Your task to perform on an android device: add a contact Image 0: 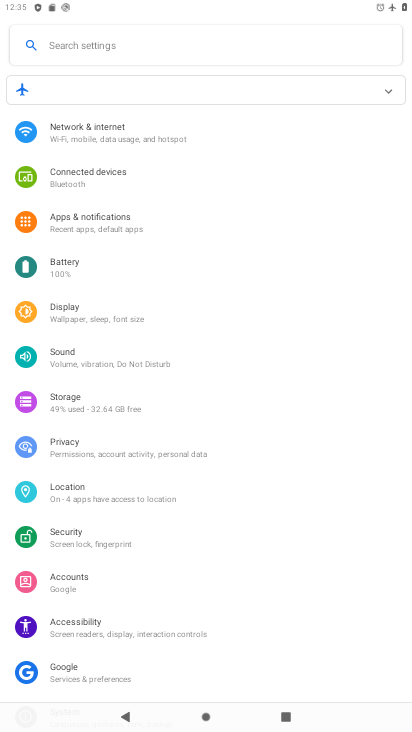
Step 0: press home button
Your task to perform on an android device: add a contact Image 1: 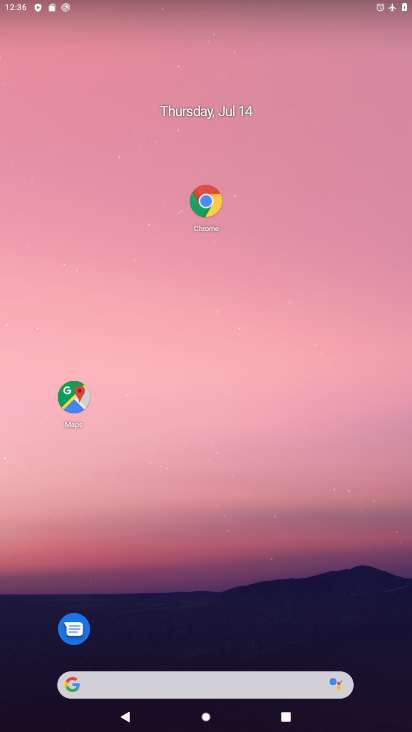
Step 1: drag from (210, 642) to (320, 53)
Your task to perform on an android device: add a contact Image 2: 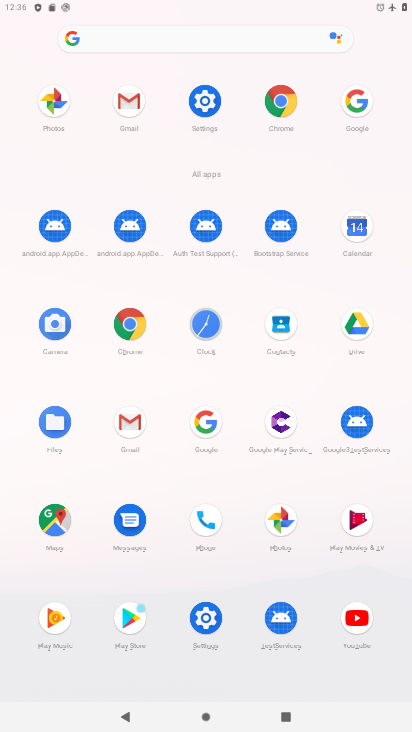
Step 2: click (204, 508)
Your task to perform on an android device: add a contact Image 3: 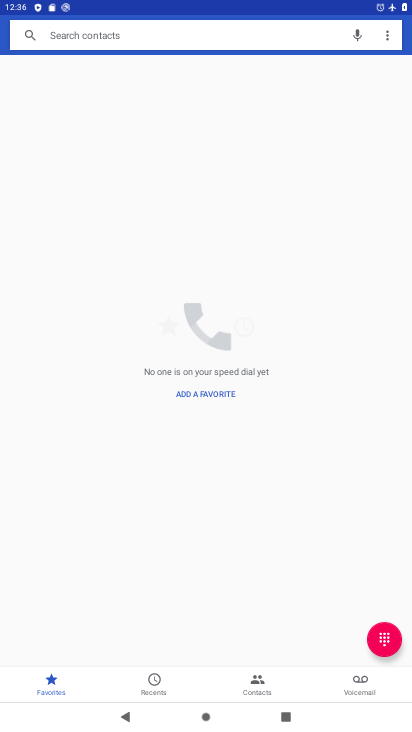
Step 3: click (256, 680)
Your task to perform on an android device: add a contact Image 4: 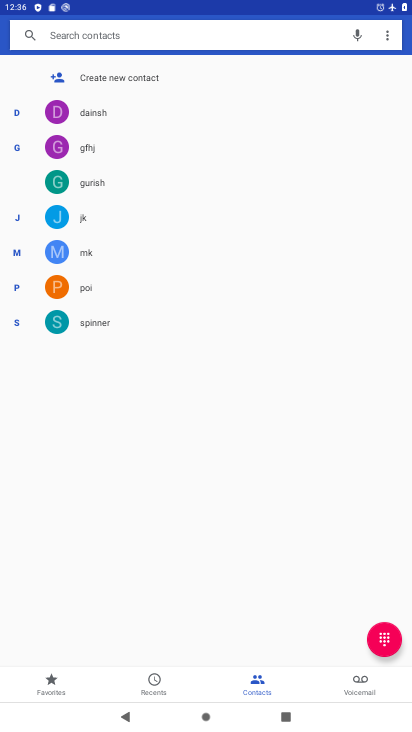
Step 4: click (86, 71)
Your task to perform on an android device: add a contact Image 5: 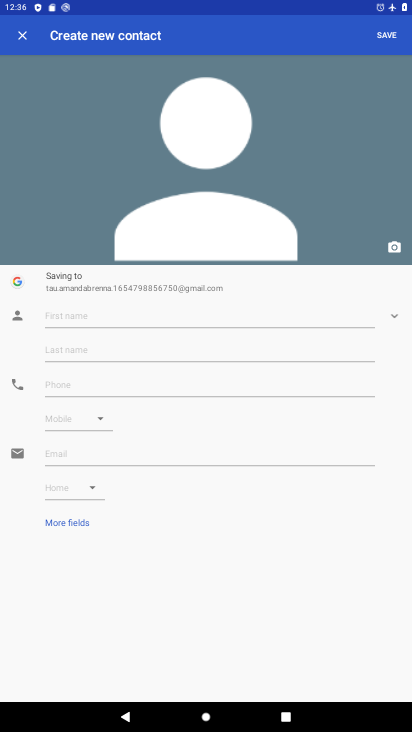
Step 5: click (200, 316)
Your task to perform on an android device: add a contact Image 6: 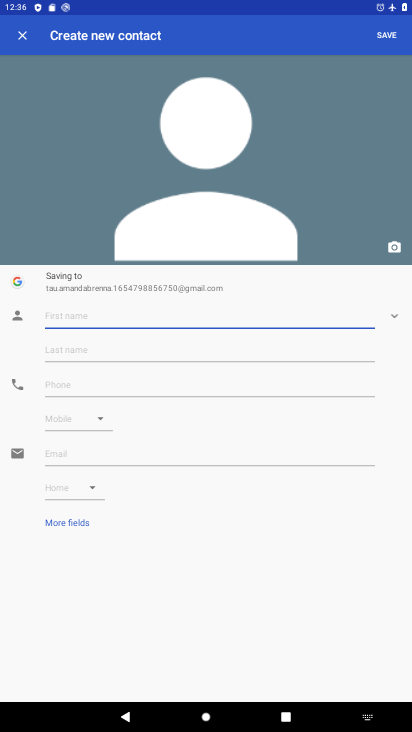
Step 6: type "m "
Your task to perform on an android device: add a contact Image 7: 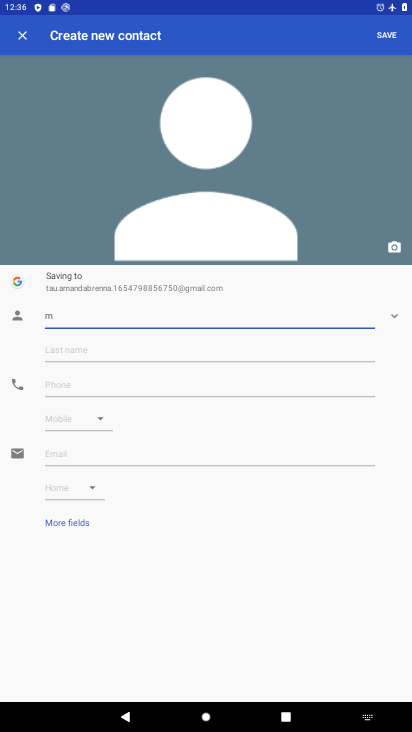
Step 7: click (200, 386)
Your task to perform on an android device: add a contact Image 8: 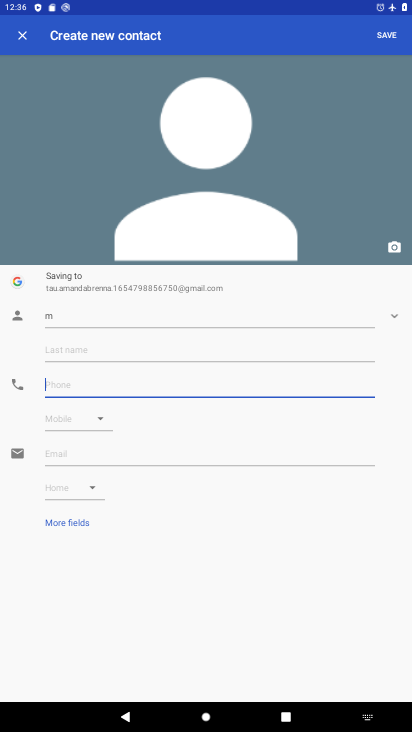
Step 8: type "21"
Your task to perform on an android device: add a contact Image 9: 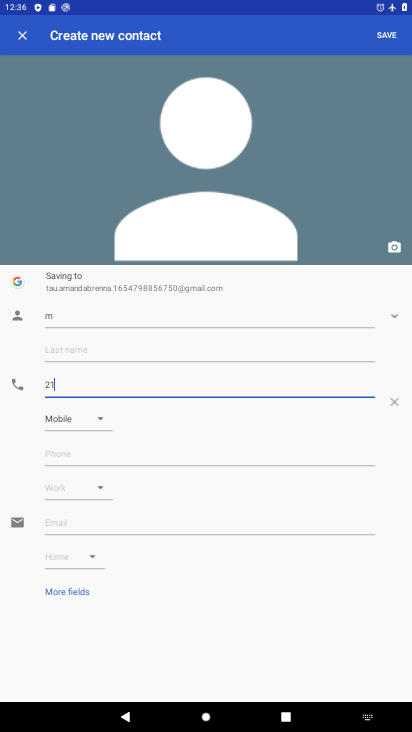
Step 9: click (387, 34)
Your task to perform on an android device: add a contact Image 10: 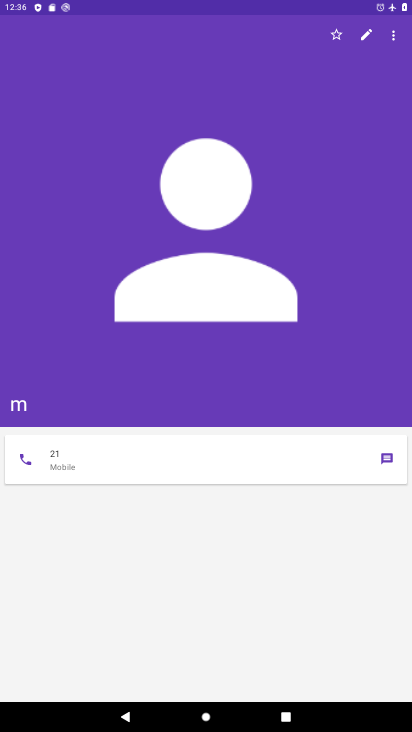
Step 10: task complete